Your task to perform on an android device: check data usage Image 0: 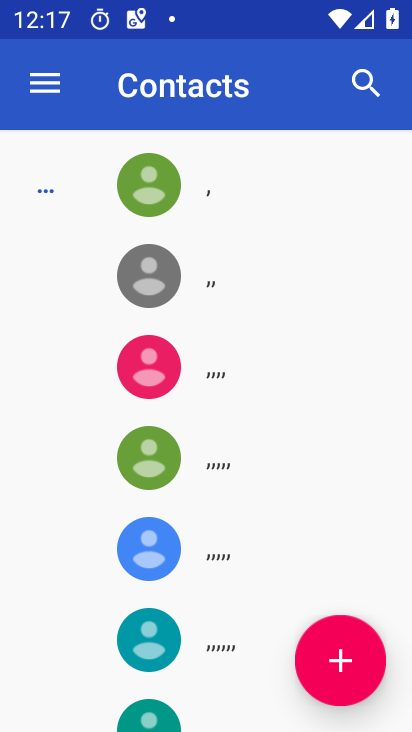
Step 0: press home button
Your task to perform on an android device: check data usage Image 1: 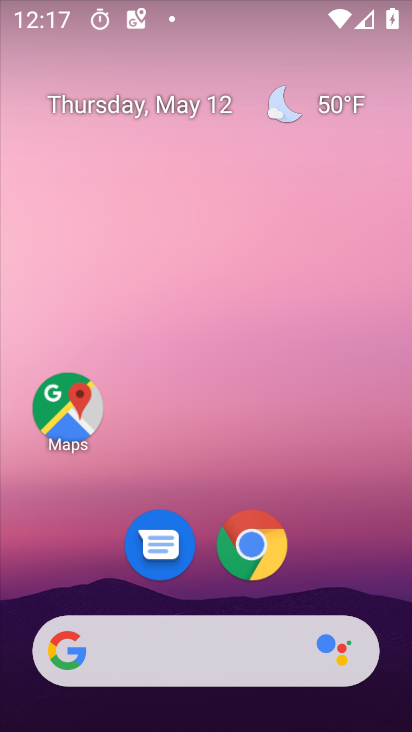
Step 1: drag from (189, 636) to (203, 90)
Your task to perform on an android device: check data usage Image 2: 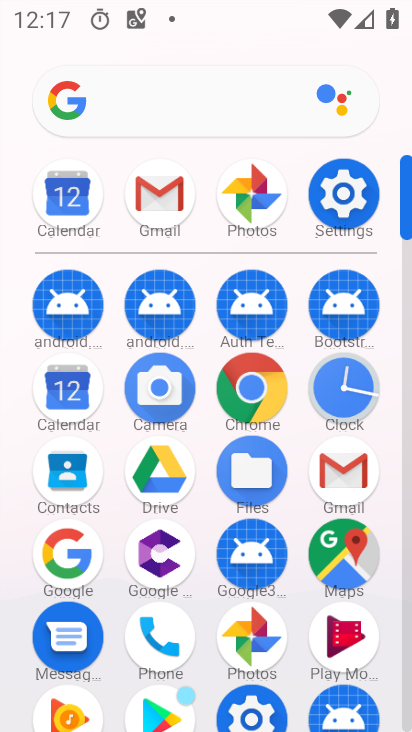
Step 2: click (327, 207)
Your task to perform on an android device: check data usage Image 3: 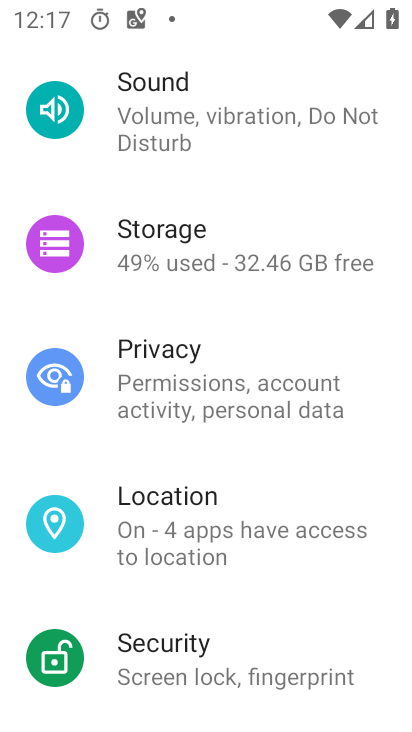
Step 3: drag from (171, 88) to (260, 565)
Your task to perform on an android device: check data usage Image 4: 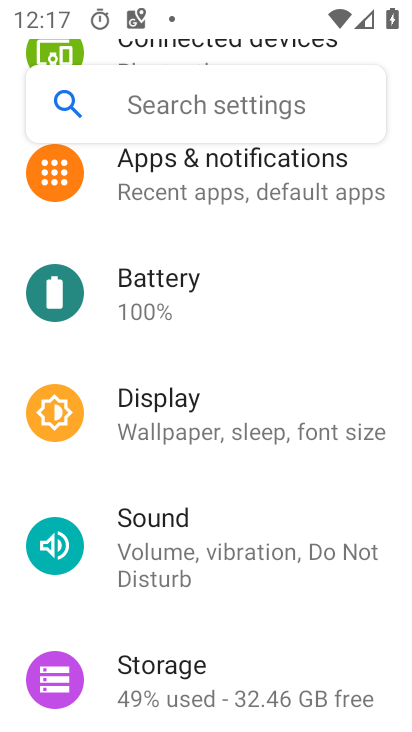
Step 4: drag from (272, 274) to (251, 716)
Your task to perform on an android device: check data usage Image 5: 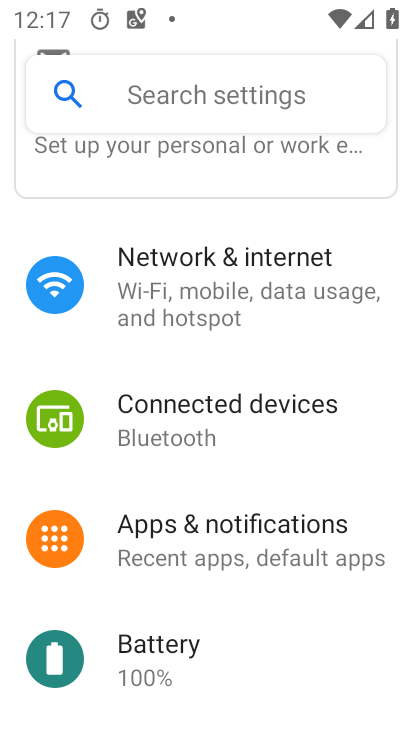
Step 5: click (172, 322)
Your task to perform on an android device: check data usage Image 6: 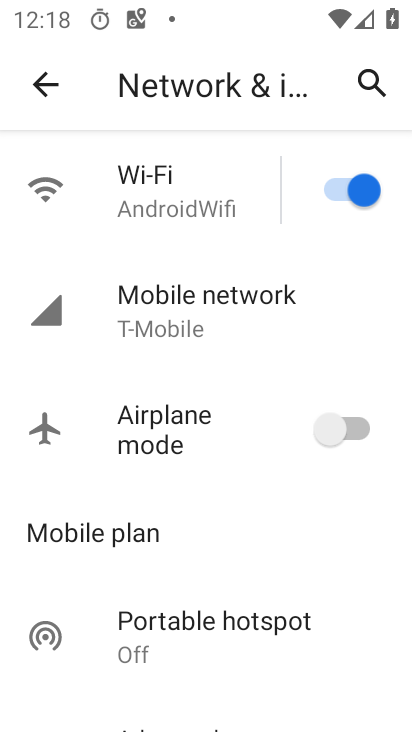
Step 6: click (216, 300)
Your task to perform on an android device: check data usage Image 7: 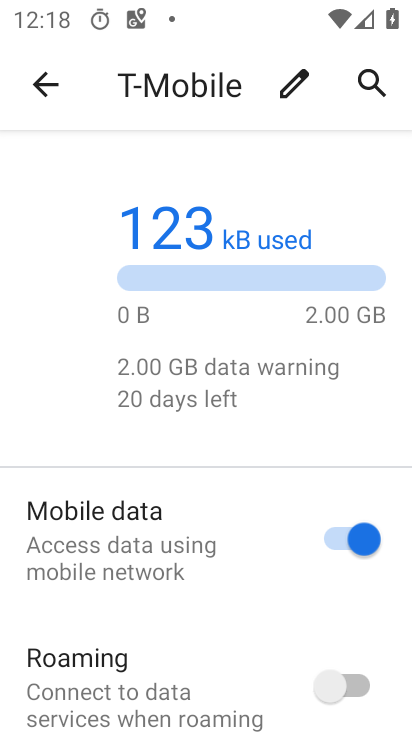
Step 7: task complete